Your task to perform on an android device: Go to Wikipedia Image 0: 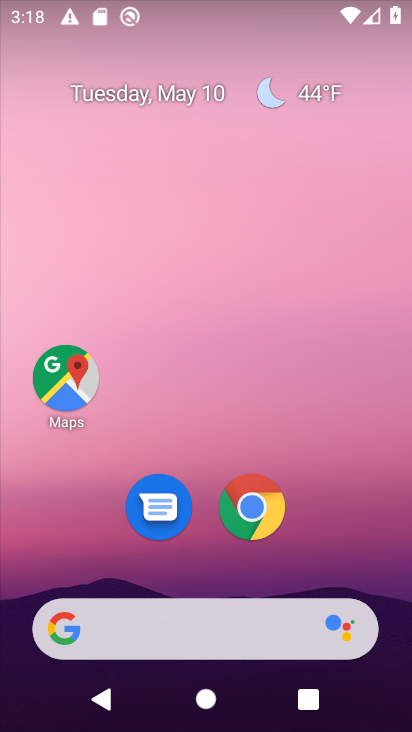
Step 0: click (263, 518)
Your task to perform on an android device: Go to Wikipedia Image 1: 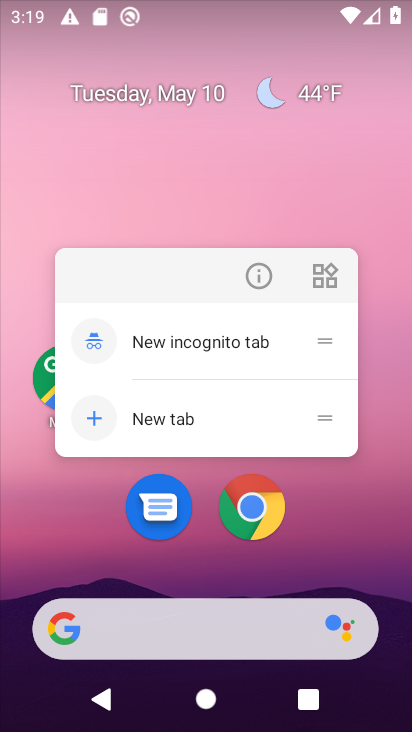
Step 1: click (257, 506)
Your task to perform on an android device: Go to Wikipedia Image 2: 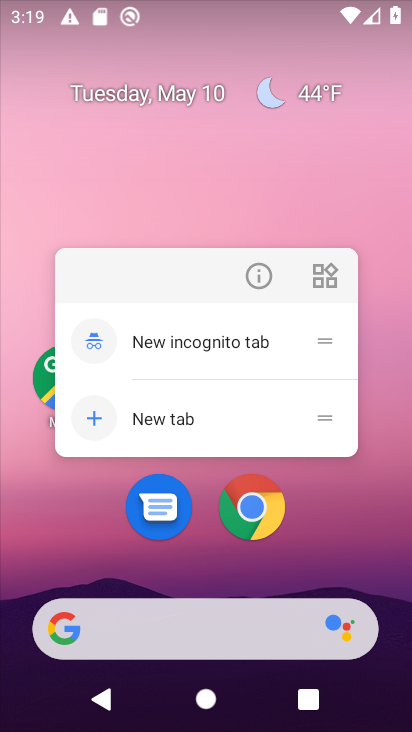
Step 2: click (257, 518)
Your task to perform on an android device: Go to Wikipedia Image 3: 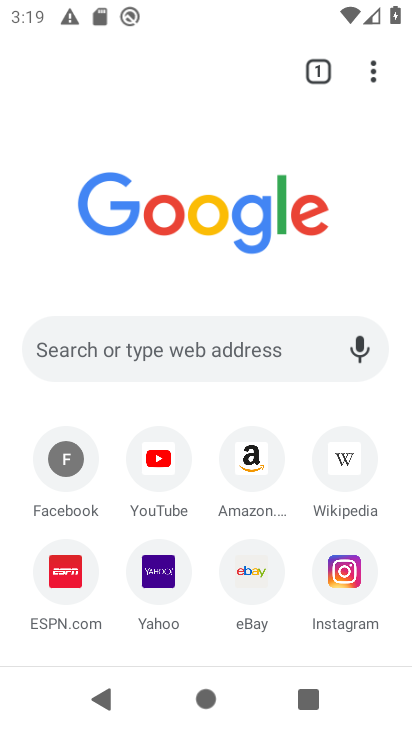
Step 3: click (327, 467)
Your task to perform on an android device: Go to Wikipedia Image 4: 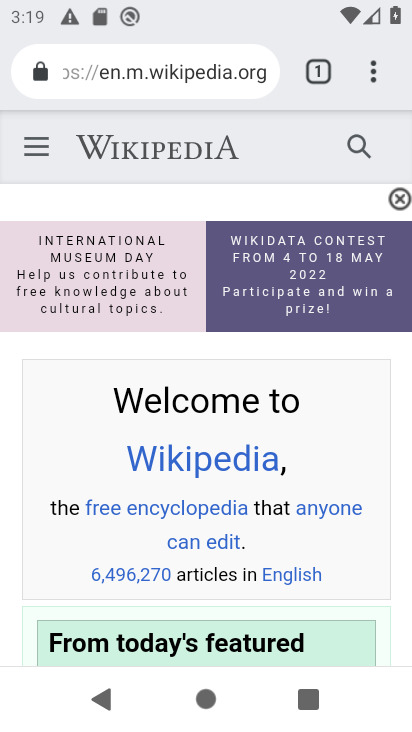
Step 4: task complete